Your task to perform on an android device: snooze an email in the gmail app Image 0: 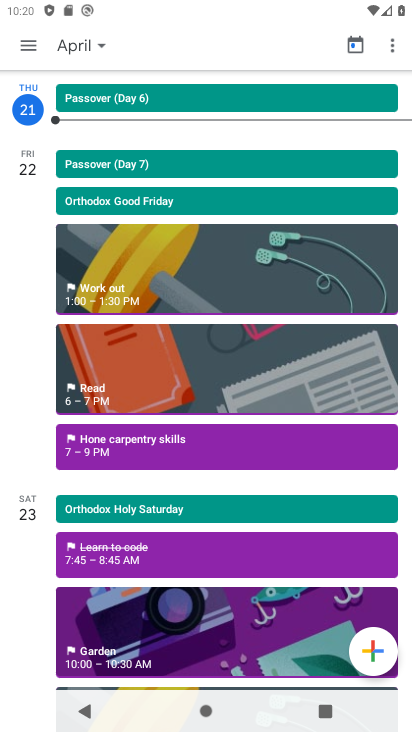
Step 0: press home button
Your task to perform on an android device: snooze an email in the gmail app Image 1: 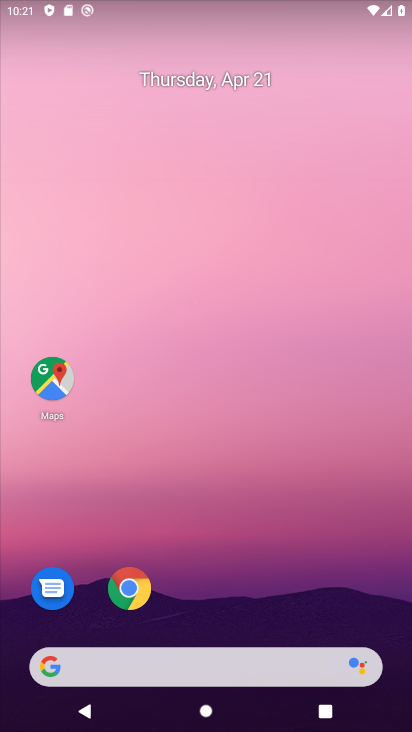
Step 1: drag from (290, 388) to (279, 17)
Your task to perform on an android device: snooze an email in the gmail app Image 2: 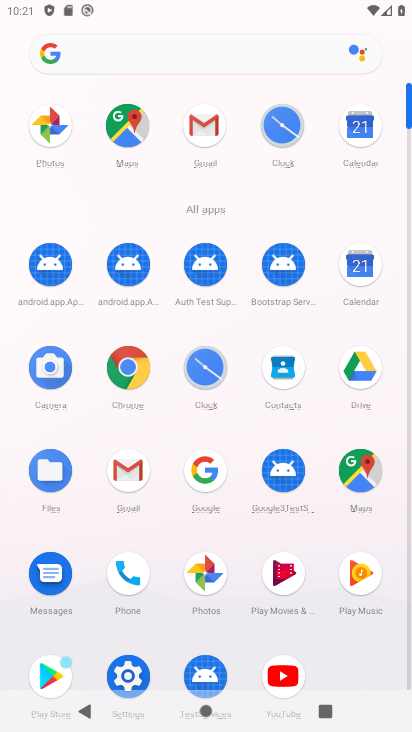
Step 2: click (203, 128)
Your task to perform on an android device: snooze an email in the gmail app Image 3: 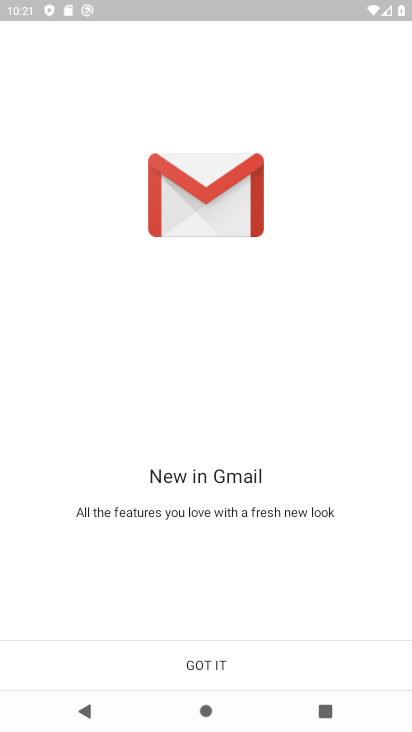
Step 3: click (207, 670)
Your task to perform on an android device: snooze an email in the gmail app Image 4: 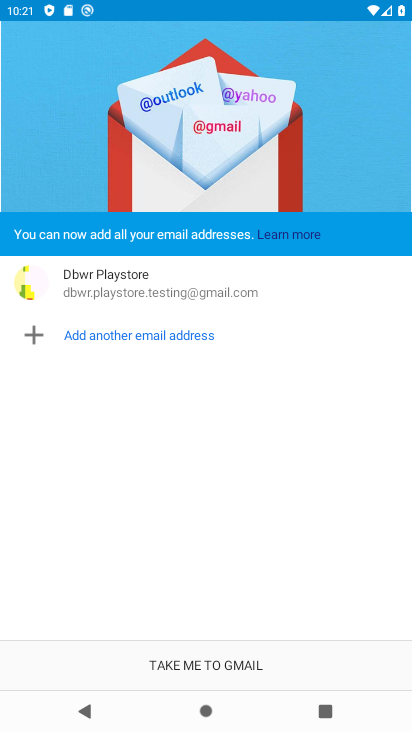
Step 4: click (226, 656)
Your task to perform on an android device: snooze an email in the gmail app Image 5: 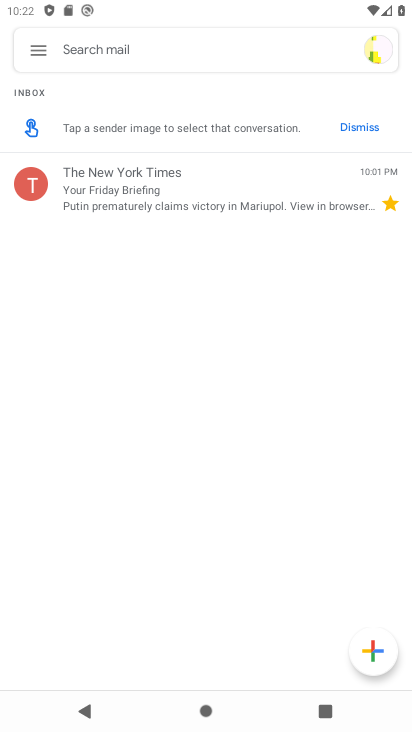
Step 5: click (170, 194)
Your task to perform on an android device: snooze an email in the gmail app Image 6: 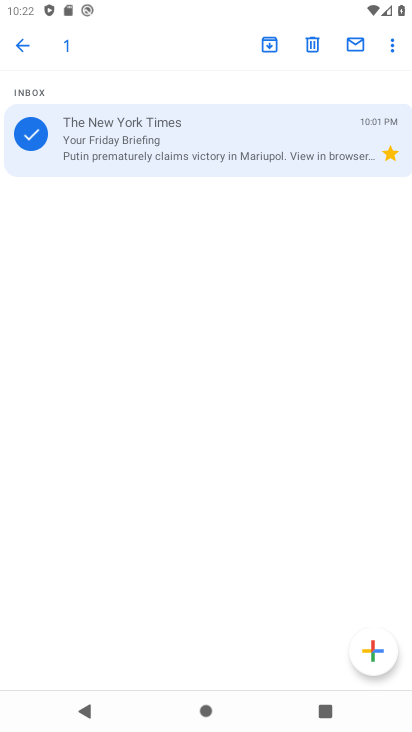
Step 6: click (398, 43)
Your task to perform on an android device: snooze an email in the gmail app Image 7: 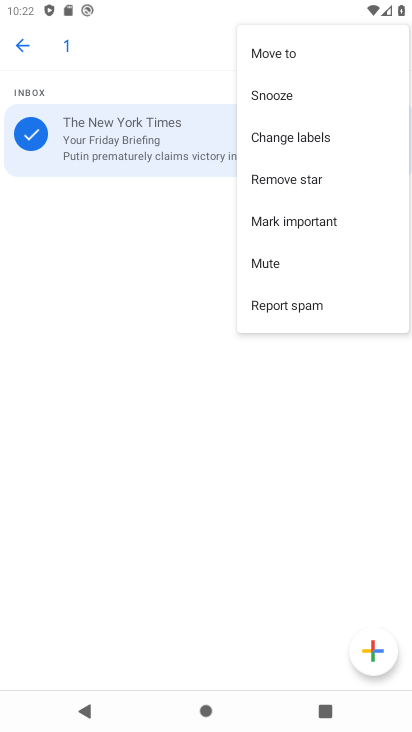
Step 7: click (287, 97)
Your task to perform on an android device: snooze an email in the gmail app Image 8: 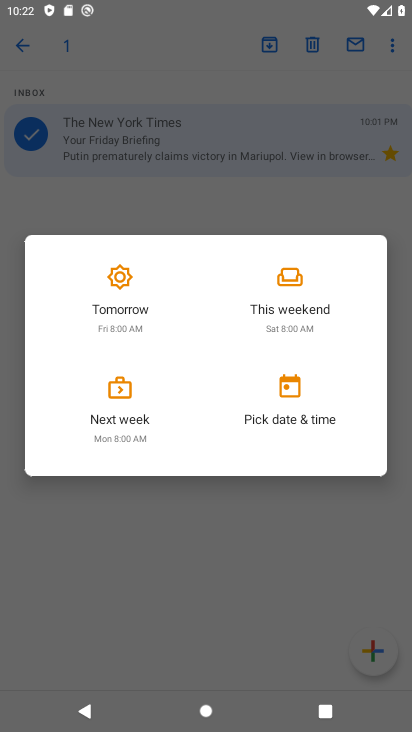
Step 8: click (116, 392)
Your task to perform on an android device: snooze an email in the gmail app Image 9: 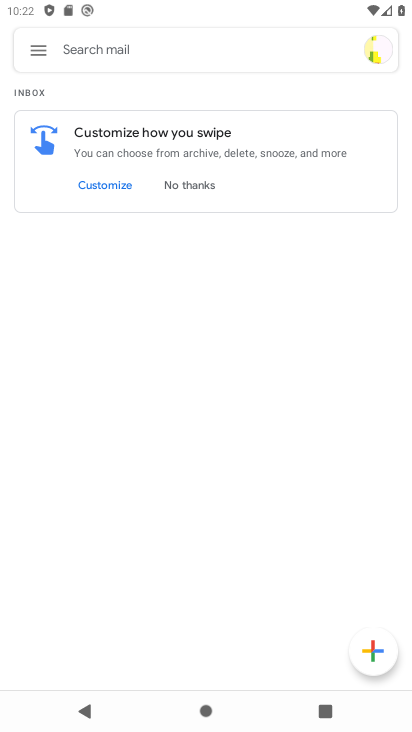
Step 9: task complete